Your task to perform on an android device: Open Yahoo.com Image 0: 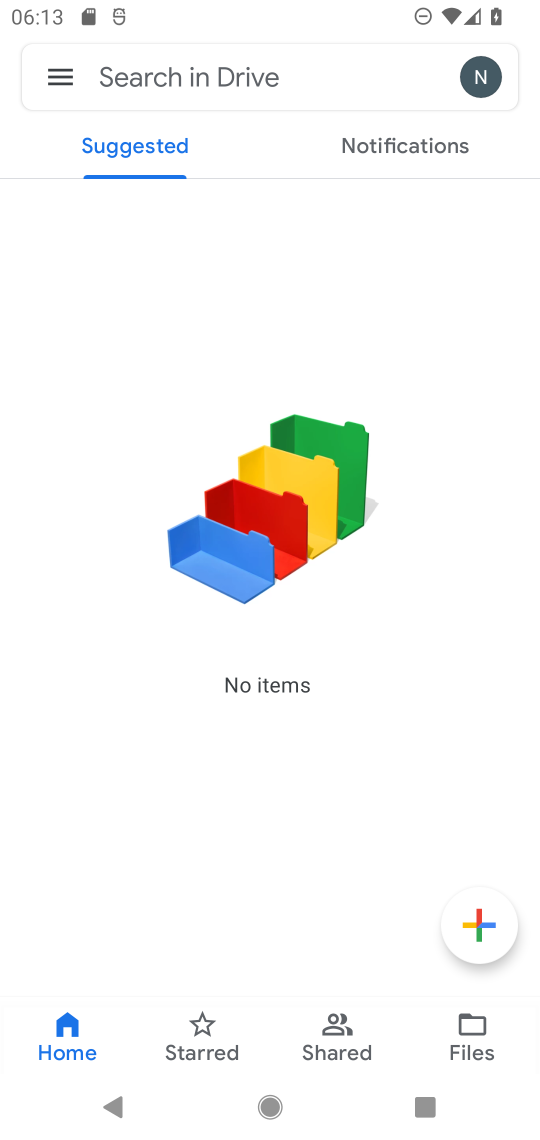
Step 0: press home button
Your task to perform on an android device: Open Yahoo.com Image 1: 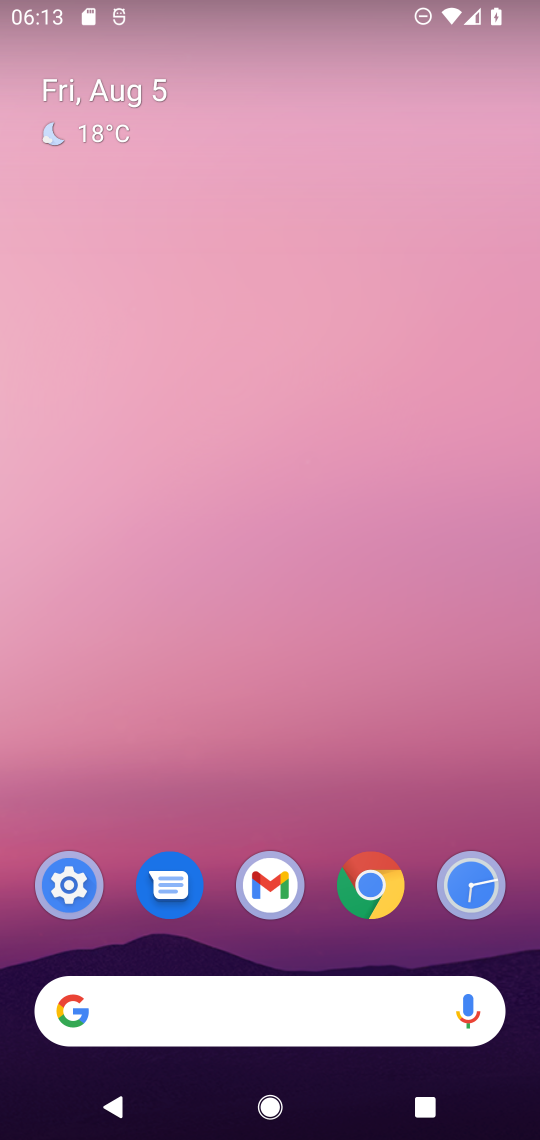
Step 1: click (374, 897)
Your task to perform on an android device: Open Yahoo.com Image 2: 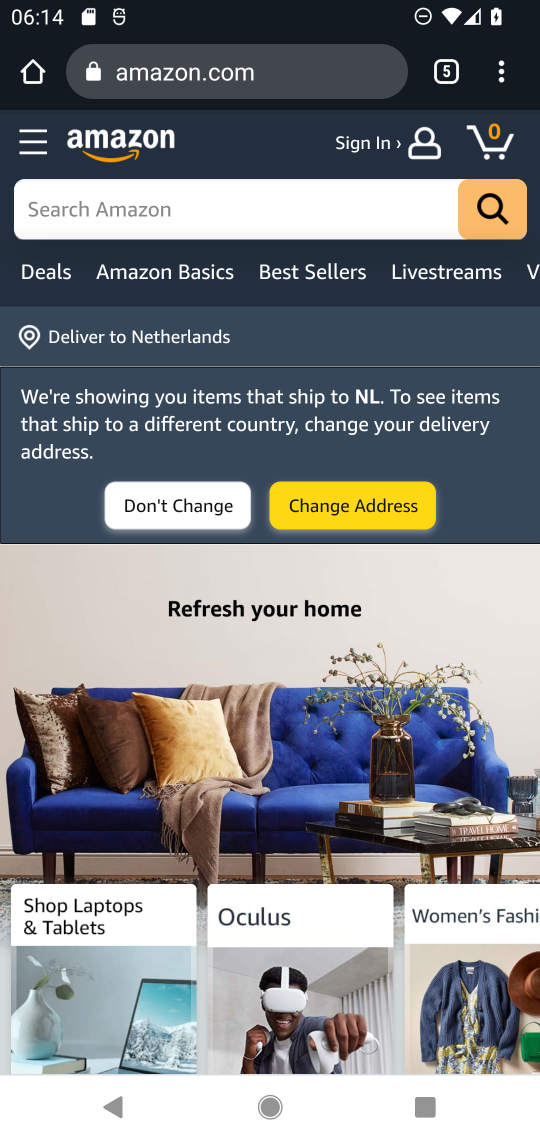
Step 2: click (499, 81)
Your task to perform on an android device: Open Yahoo.com Image 3: 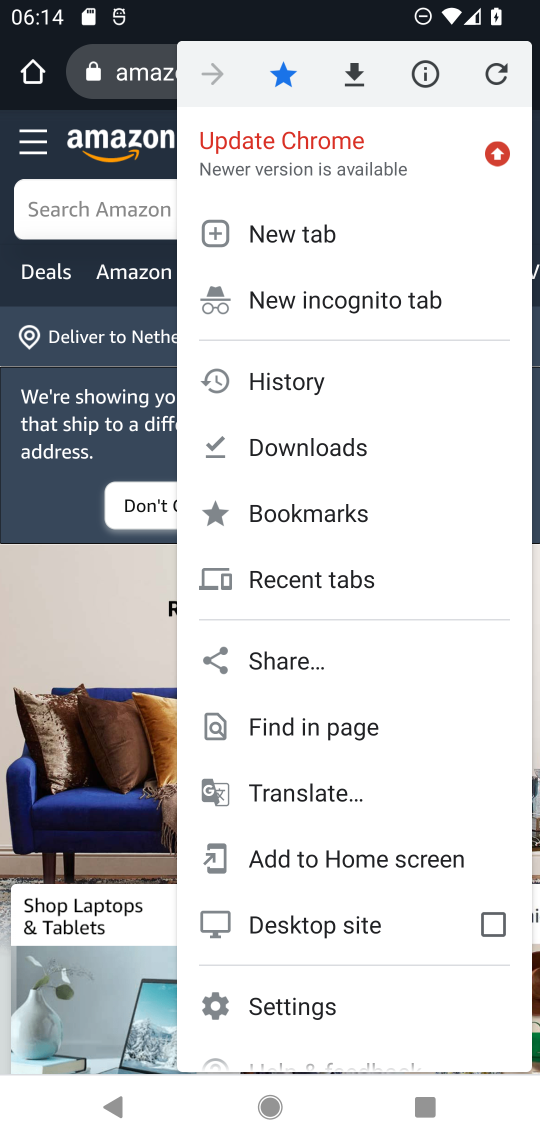
Step 3: click (272, 233)
Your task to perform on an android device: Open Yahoo.com Image 4: 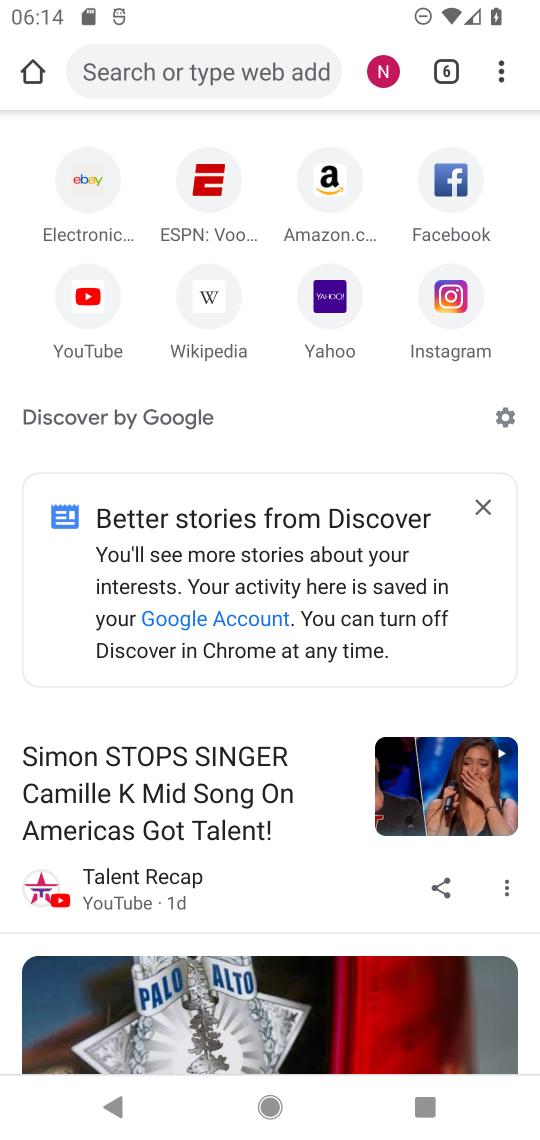
Step 4: click (330, 304)
Your task to perform on an android device: Open Yahoo.com Image 5: 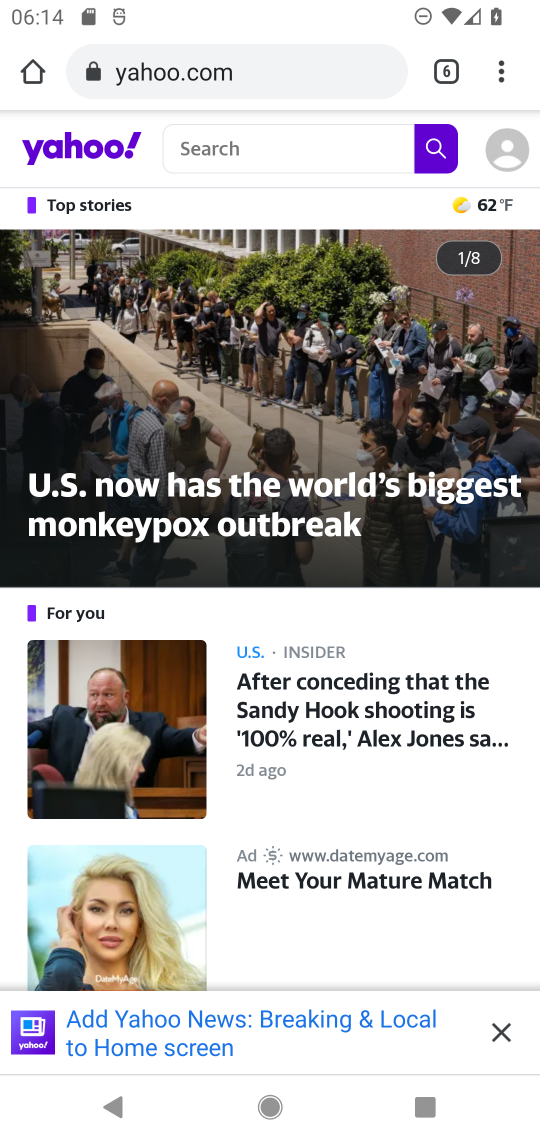
Step 5: task complete